Your task to perform on an android device: Search for apple airpods on walmart, select the first entry, add it to the cart, then select checkout. Image 0: 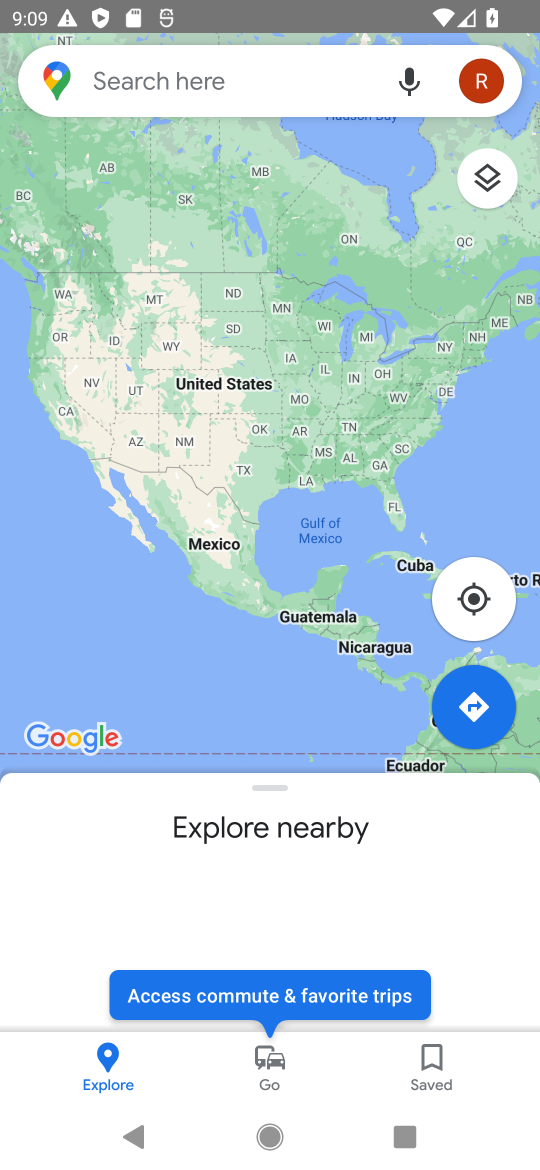
Step 0: press home button
Your task to perform on an android device: Search for apple airpods on walmart, select the first entry, add it to the cart, then select checkout. Image 1: 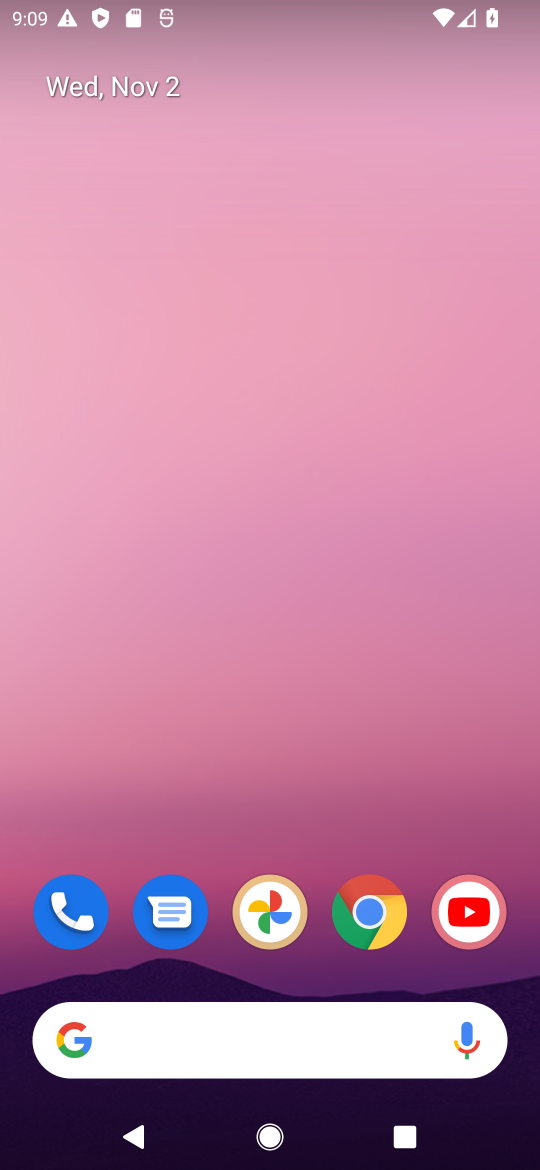
Step 1: drag from (348, 1100) to (279, 64)
Your task to perform on an android device: Search for apple airpods on walmart, select the first entry, add it to the cart, then select checkout. Image 2: 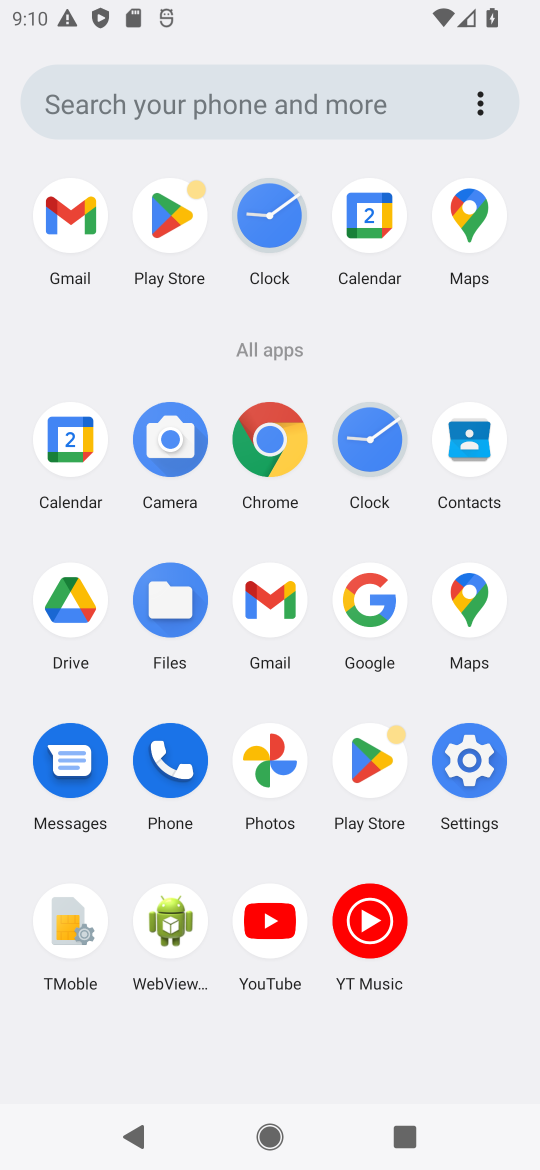
Step 2: click (276, 443)
Your task to perform on an android device: Search for apple airpods on walmart, select the first entry, add it to the cart, then select checkout. Image 3: 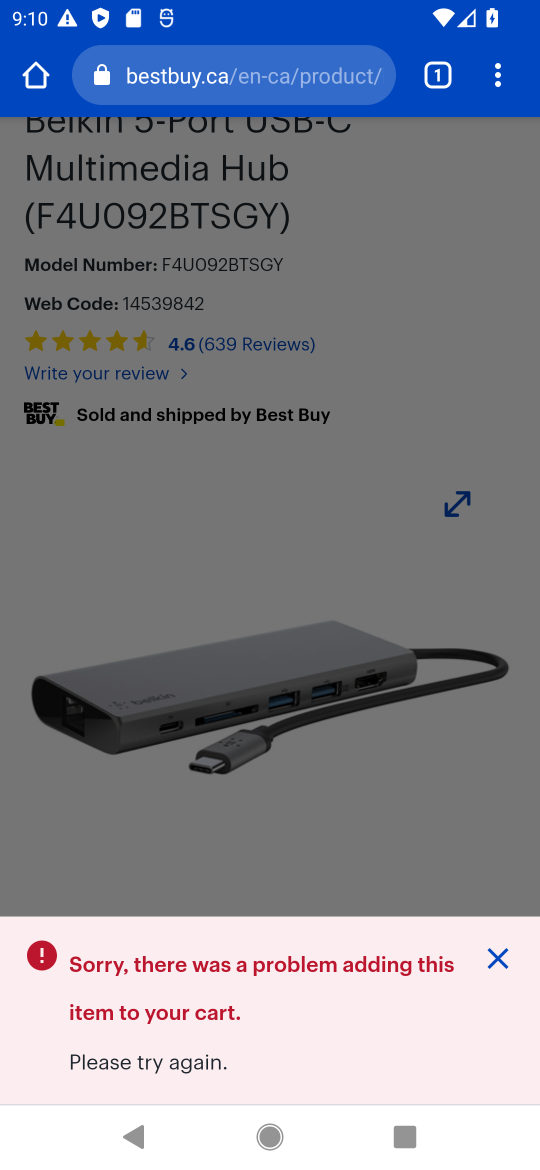
Step 3: click (207, 75)
Your task to perform on an android device: Search for apple airpods on walmart, select the first entry, add it to the cart, then select checkout. Image 4: 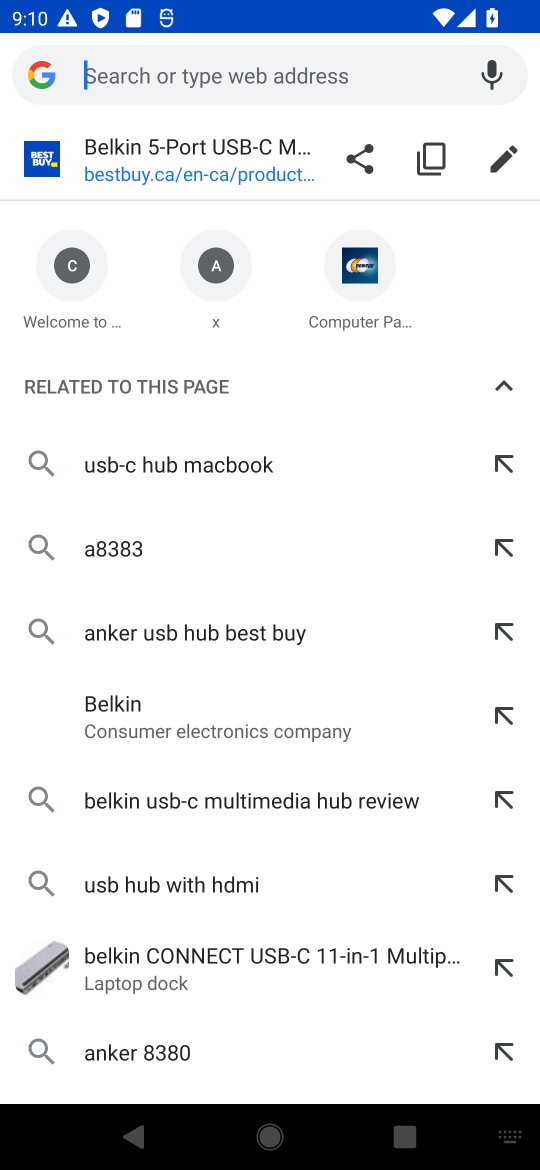
Step 4: type "walmart"
Your task to perform on an android device: Search for apple airpods on walmart, select the first entry, add it to the cart, then select checkout. Image 5: 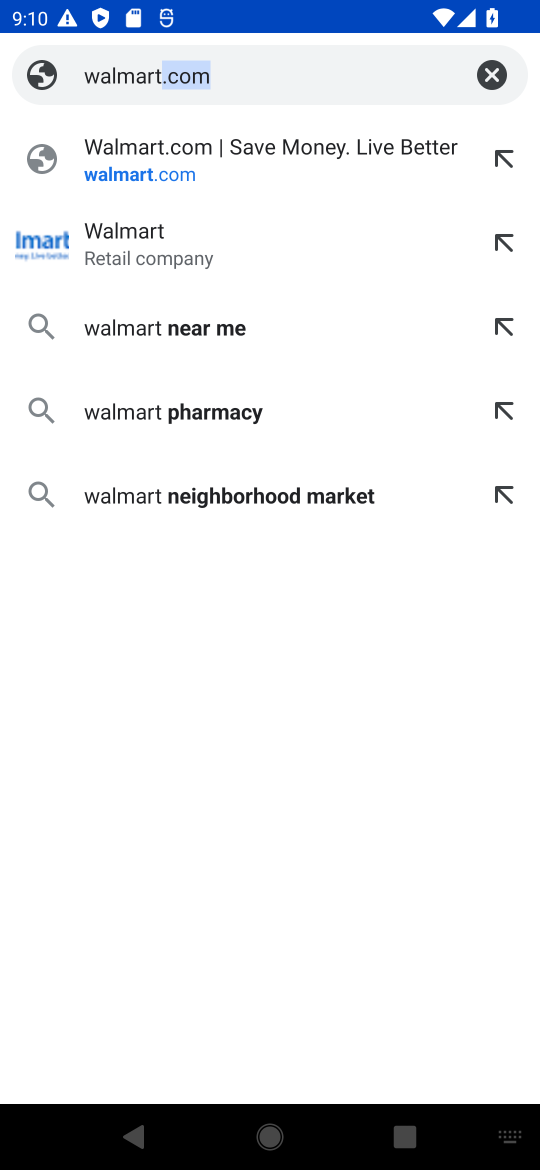
Step 5: click (125, 181)
Your task to perform on an android device: Search for apple airpods on walmart, select the first entry, add it to the cart, then select checkout. Image 6: 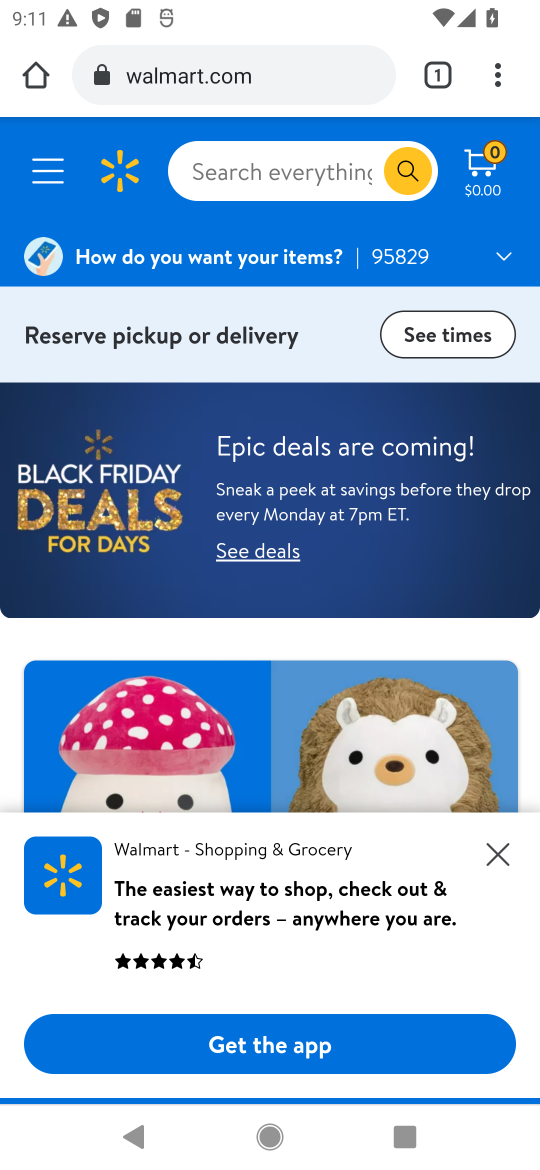
Step 6: click (253, 171)
Your task to perform on an android device: Search for apple airpods on walmart, select the first entry, add it to the cart, then select checkout. Image 7: 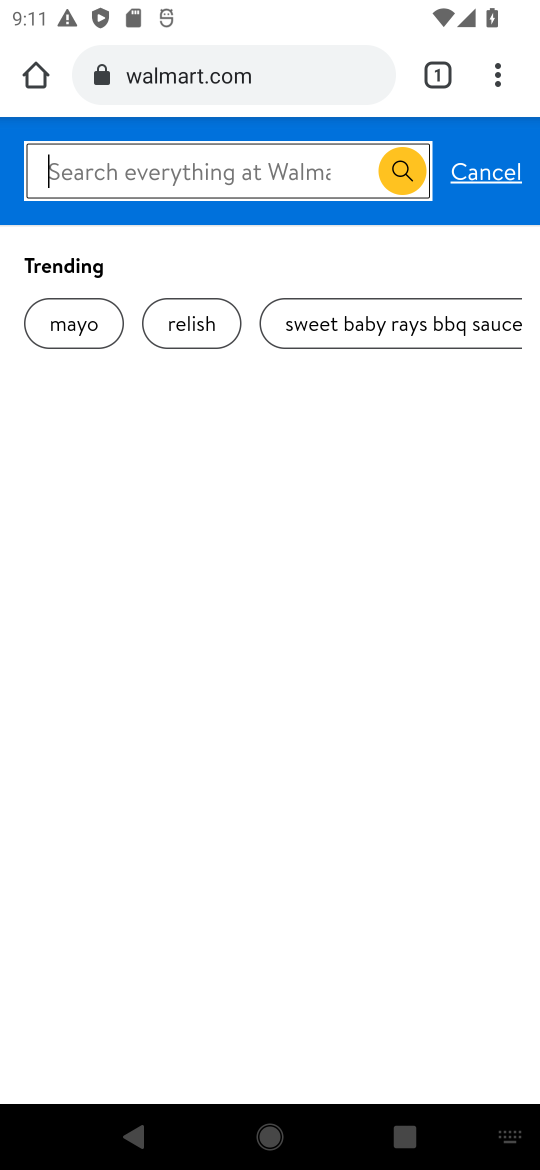
Step 7: type "apple airpods"
Your task to perform on an android device: Search for apple airpods on walmart, select the first entry, add it to the cart, then select checkout. Image 8: 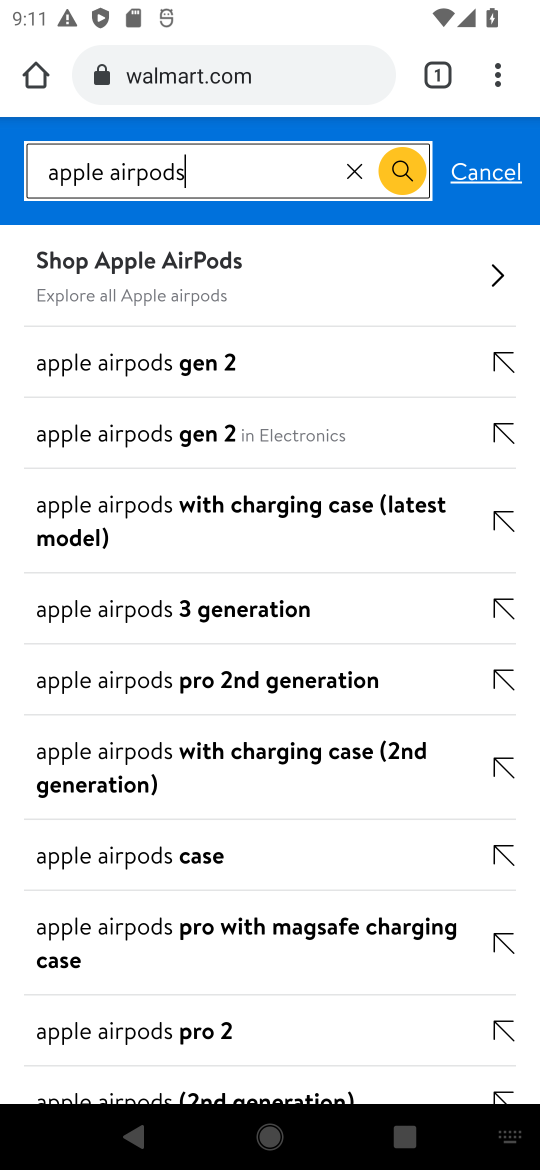
Step 8: click (402, 156)
Your task to perform on an android device: Search for apple airpods on walmart, select the first entry, add it to the cart, then select checkout. Image 9: 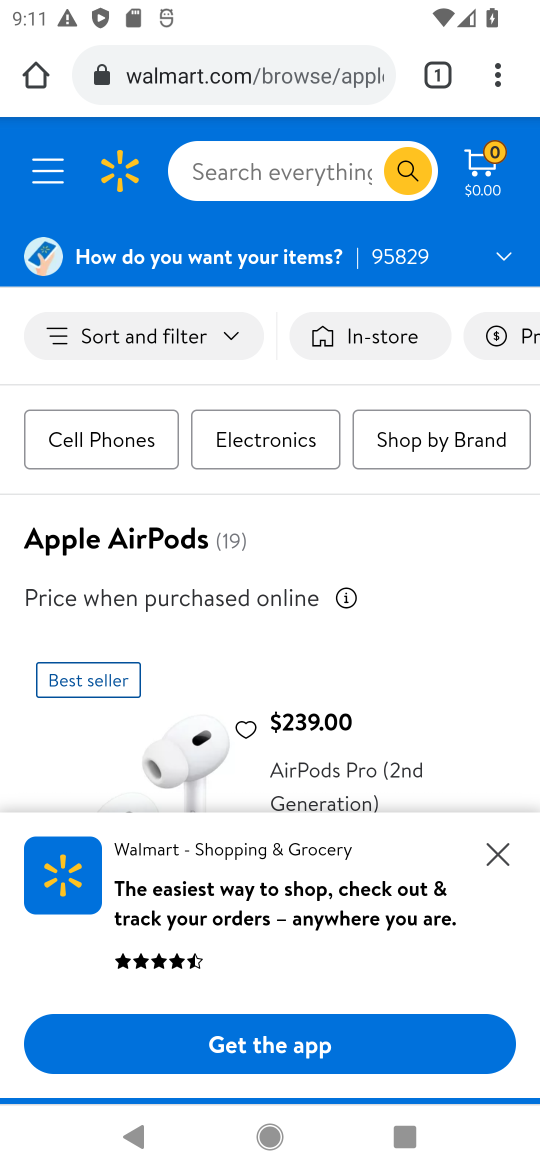
Step 9: click (502, 844)
Your task to perform on an android device: Search for apple airpods on walmart, select the first entry, add it to the cart, then select checkout. Image 10: 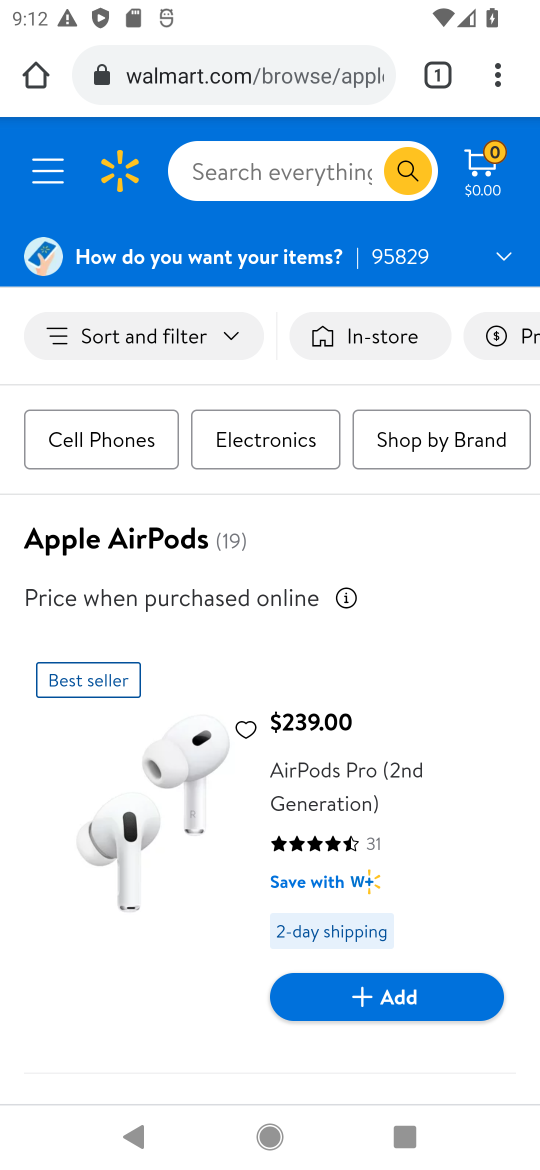
Step 10: drag from (232, 939) to (212, 529)
Your task to perform on an android device: Search for apple airpods on walmart, select the first entry, add it to the cart, then select checkout. Image 11: 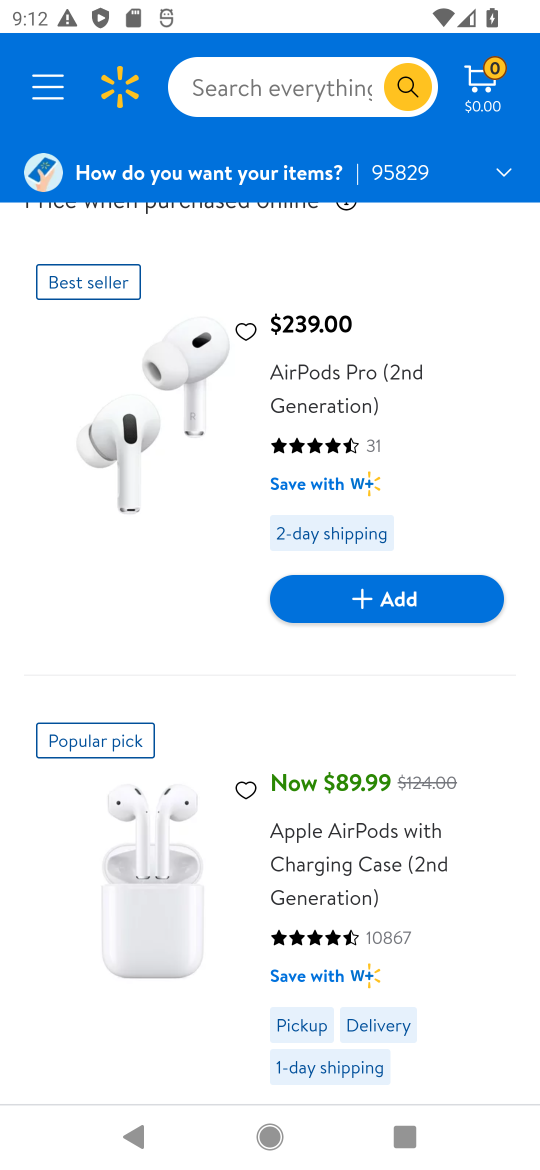
Step 11: click (240, 391)
Your task to perform on an android device: Search for apple airpods on walmart, select the first entry, add it to the cart, then select checkout. Image 12: 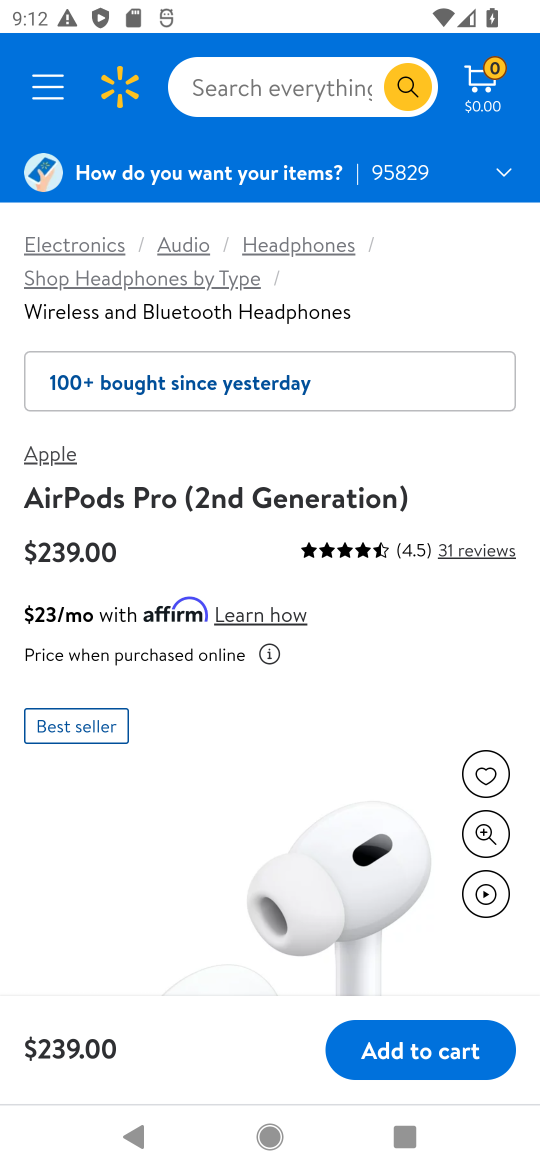
Step 12: click (427, 1048)
Your task to perform on an android device: Search for apple airpods on walmart, select the first entry, add it to the cart, then select checkout. Image 13: 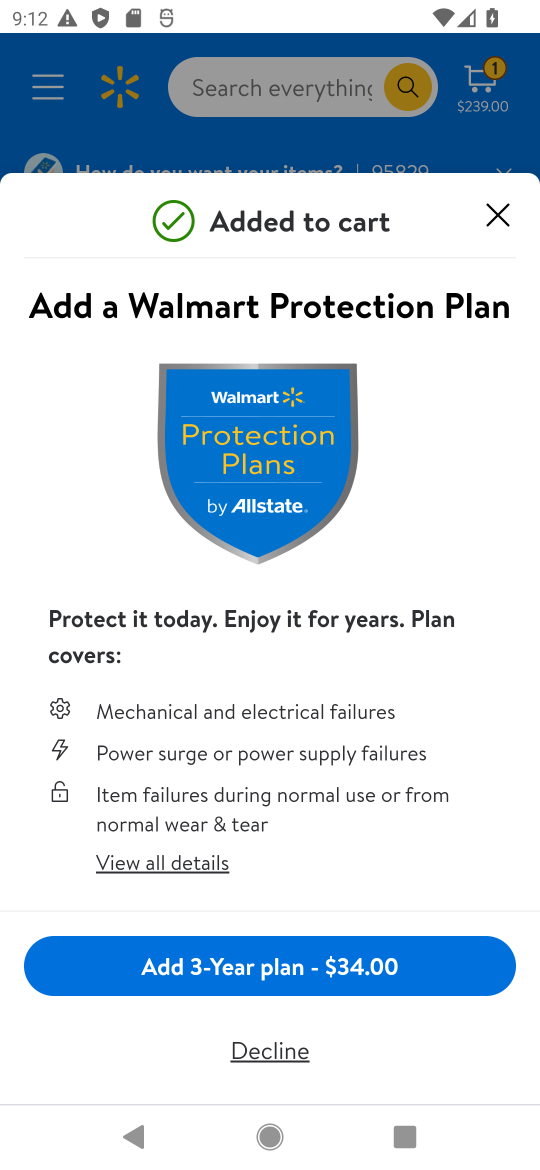
Step 13: task complete